Your task to perform on an android device: open chrome and create a bookmark for the current page Image 0: 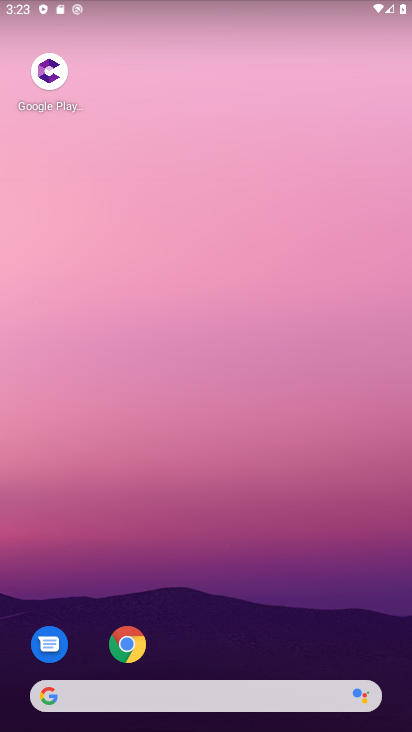
Step 0: click (136, 641)
Your task to perform on an android device: open chrome and create a bookmark for the current page Image 1: 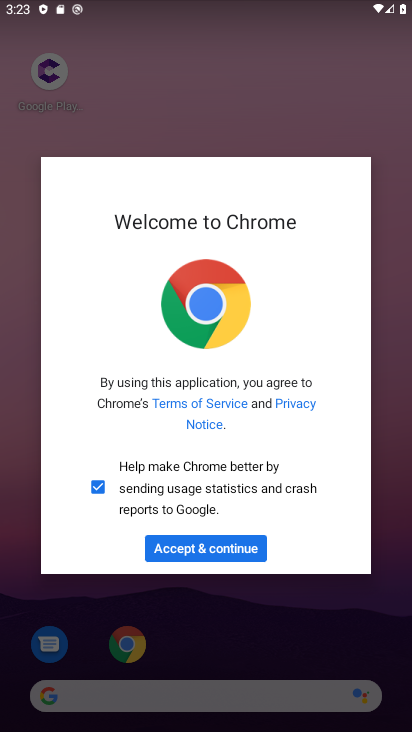
Step 1: click (215, 542)
Your task to perform on an android device: open chrome and create a bookmark for the current page Image 2: 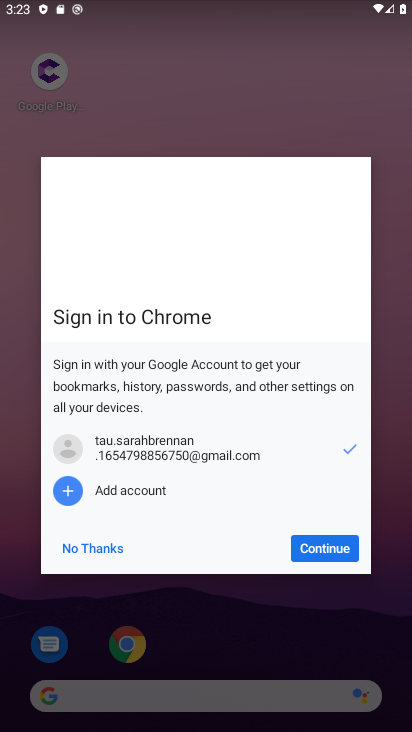
Step 2: click (304, 550)
Your task to perform on an android device: open chrome and create a bookmark for the current page Image 3: 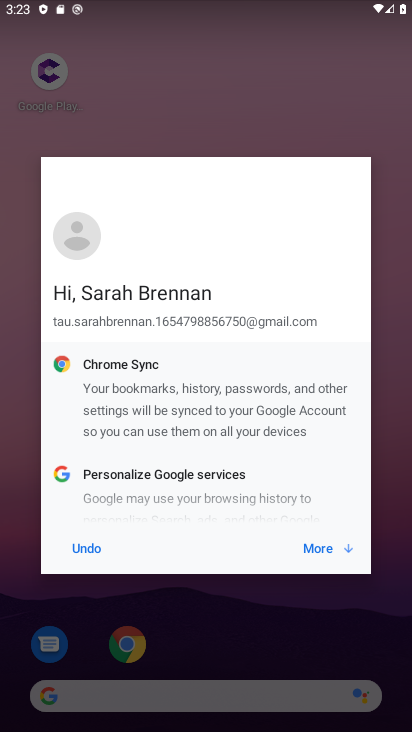
Step 3: click (304, 550)
Your task to perform on an android device: open chrome and create a bookmark for the current page Image 4: 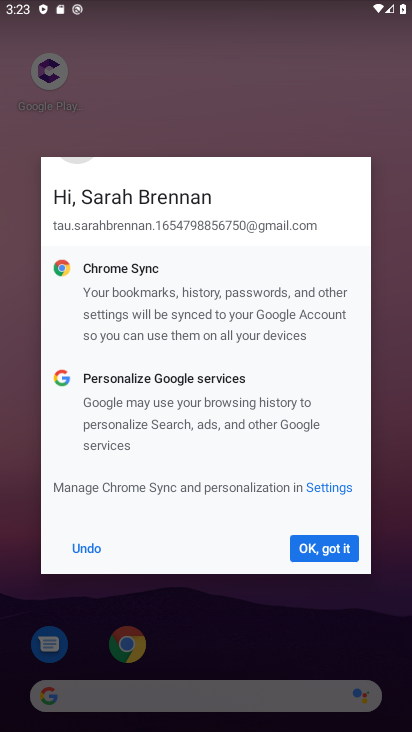
Step 4: click (304, 550)
Your task to perform on an android device: open chrome and create a bookmark for the current page Image 5: 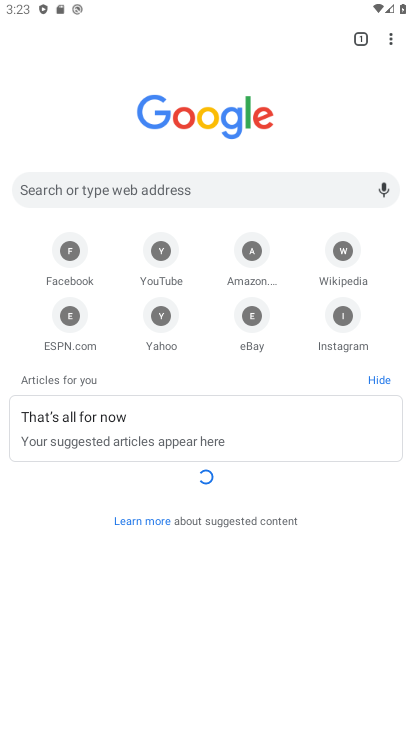
Step 5: click (360, 40)
Your task to perform on an android device: open chrome and create a bookmark for the current page Image 6: 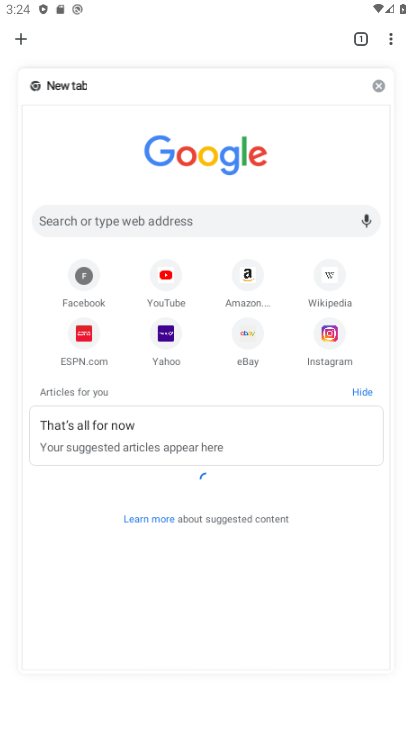
Step 6: click (153, 88)
Your task to perform on an android device: open chrome and create a bookmark for the current page Image 7: 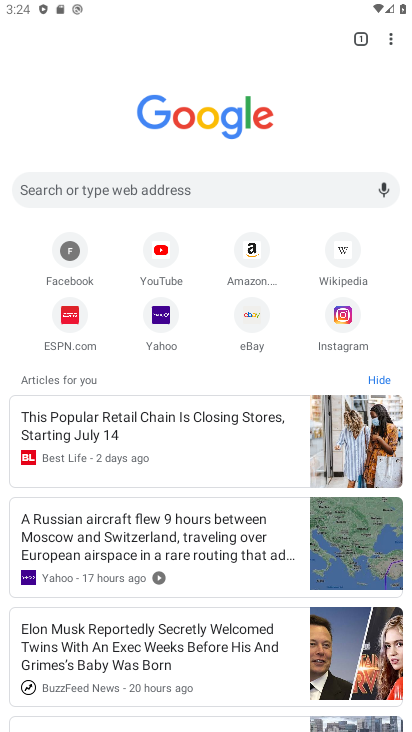
Step 7: click (391, 33)
Your task to perform on an android device: open chrome and create a bookmark for the current page Image 8: 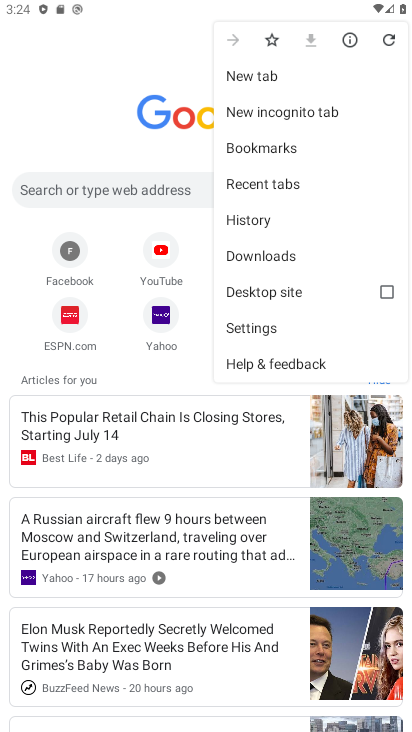
Step 8: click (271, 43)
Your task to perform on an android device: open chrome and create a bookmark for the current page Image 9: 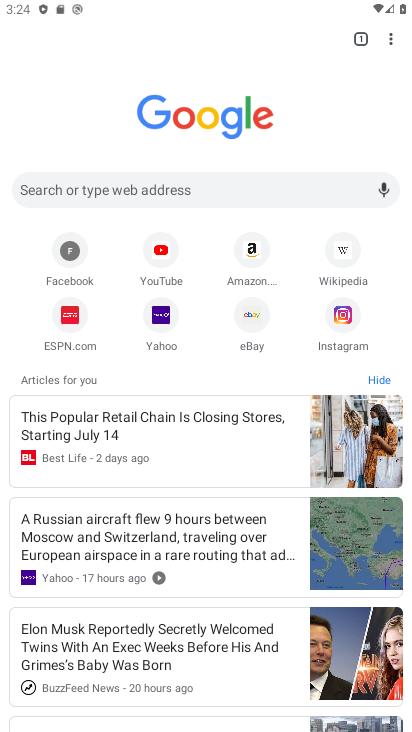
Step 9: task complete